Your task to perform on an android device: Show the shopping cart on amazon.com. Add "razer blade" to the cart on amazon.com Image 0: 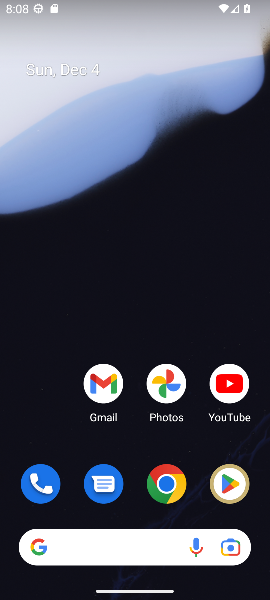
Step 0: click (166, 482)
Your task to perform on an android device: Show the shopping cart on amazon.com. Add "razer blade" to the cart on amazon.com Image 1: 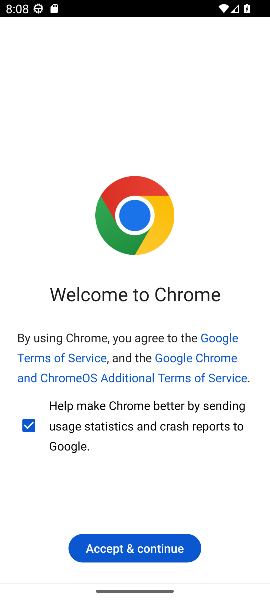
Step 1: click (123, 548)
Your task to perform on an android device: Show the shopping cart on amazon.com. Add "razer blade" to the cart on amazon.com Image 2: 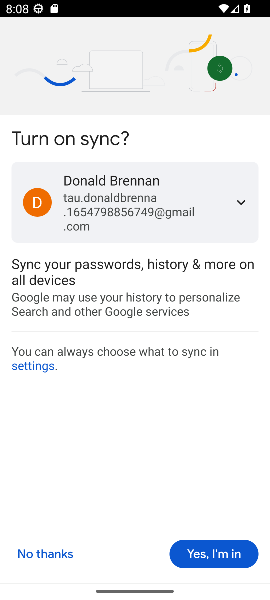
Step 2: click (56, 554)
Your task to perform on an android device: Show the shopping cart on amazon.com. Add "razer blade" to the cart on amazon.com Image 3: 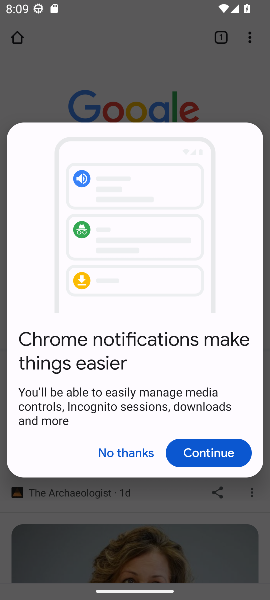
Step 3: press home button
Your task to perform on an android device: Show the shopping cart on amazon.com. Add "razer blade" to the cart on amazon.com Image 4: 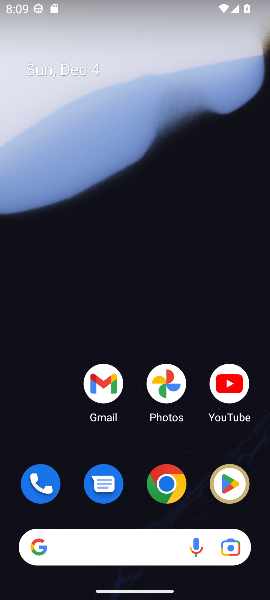
Step 4: click (162, 482)
Your task to perform on an android device: Show the shopping cart on amazon.com. Add "razer blade" to the cart on amazon.com Image 5: 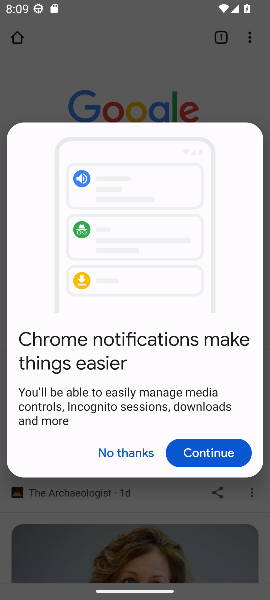
Step 5: press home button
Your task to perform on an android device: Show the shopping cart on amazon.com. Add "razer blade" to the cart on amazon.com Image 6: 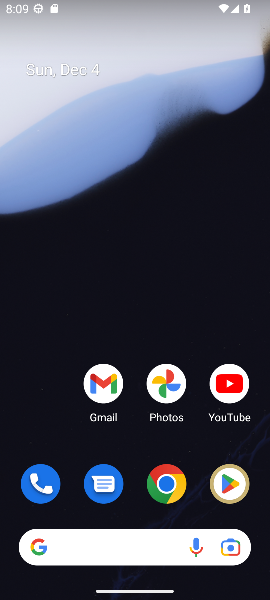
Step 6: click (167, 490)
Your task to perform on an android device: Show the shopping cart on amazon.com. Add "razer blade" to the cart on amazon.com Image 7: 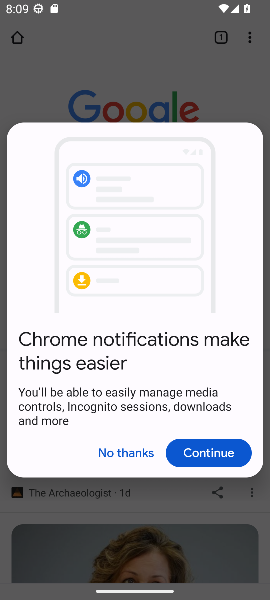
Step 7: click (115, 455)
Your task to perform on an android device: Show the shopping cart on amazon.com. Add "razer blade" to the cart on amazon.com Image 8: 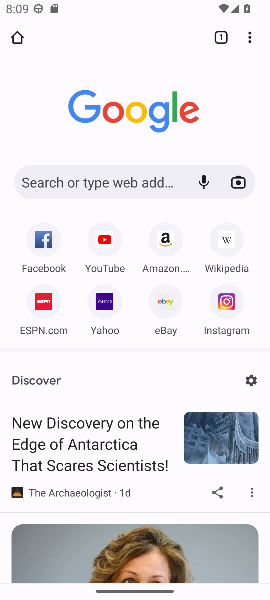
Step 8: click (59, 182)
Your task to perform on an android device: Show the shopping cart on amazon.com. Add "razer blade" to the cart on amazon.com Image 9: 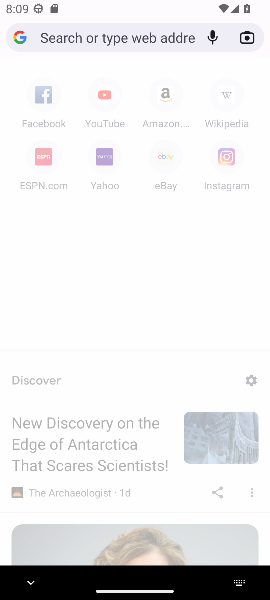
Step 9: click (168, 117)
Your task to perform on an android device: Show the shopping cart on amazon.com. Add "razer blade" to the cart on amazon.com Image 10: 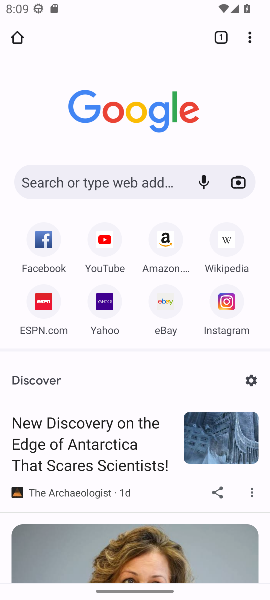
Step 10: click (167, 263)
Your task to perform on an android device: Show the shopping cart on amazon.com. Add "razer blade" to the cart on amazon.com Image 11: 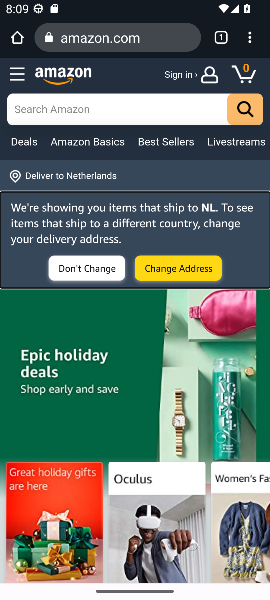
Step 11: click (246, 73)
Your task to perform on an android device: Show the shopping cart on amazon.com. Add "razer blade" to the cart on amazon.com Image 12: 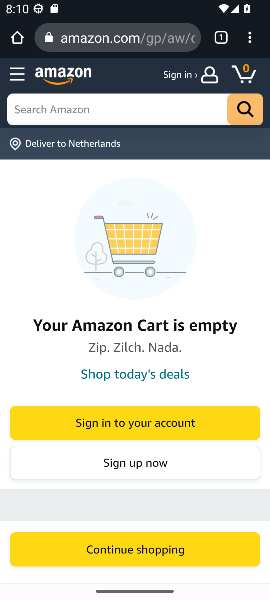
Step 12: click (57, 107)
Your task to perform on an android device: Show the shopping cart on amazon.com. Add "razer blade" to the cart on amazon.com Image 13: 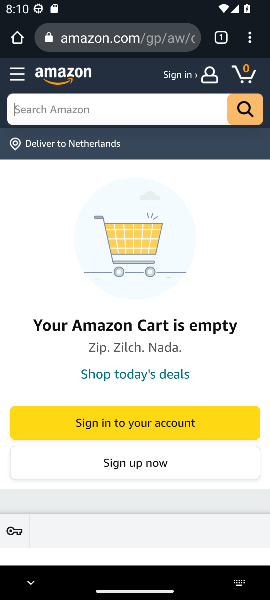
Step 13: type "razer blade"
Your task to perform on an android device: Show the shopping cart on amazon.com. Add "razer blade" to the cart on amazon.com Image 14: 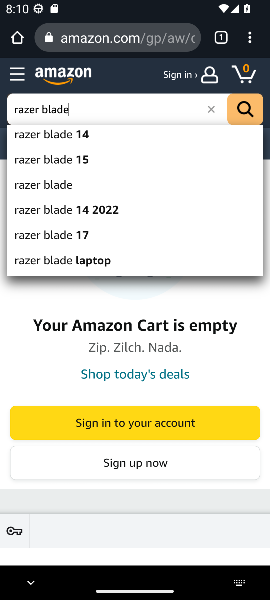
Step 14: click (36, 136)
Your task to perform on an android device: Show the shopping cart on amazon.com. Add "razer blade" to the cart on amazon.com Image 15: 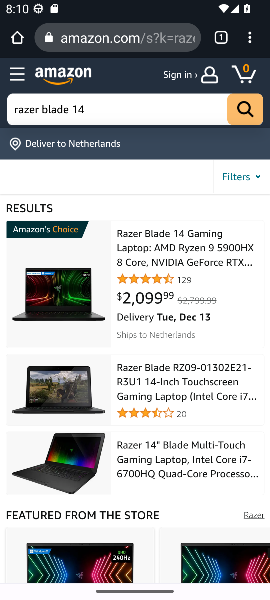
Step 15: click (146, 262)
Your task to perform on an android device: Show the shopping cart on amazon.com. Add "razer blade" to the cart on amazon.com Image 16: 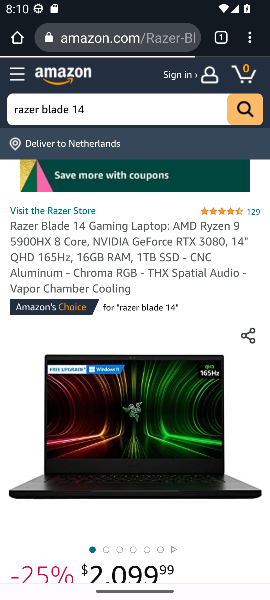
Step 16: drag from (166, 434) to (170, 166)
Your task to perform on an android device: Show the shopping cart on amazon.com. Add "razer blade" to the cart on amazon.com Image 17: 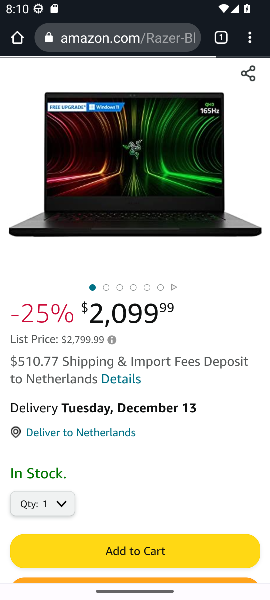
Step 17: drag from (161, 407) to (160, 238)
Your task to perform on an android device: Show the shopping cart on amazon.com. Add "razer blade" to the cart on amazon.com Image 18: 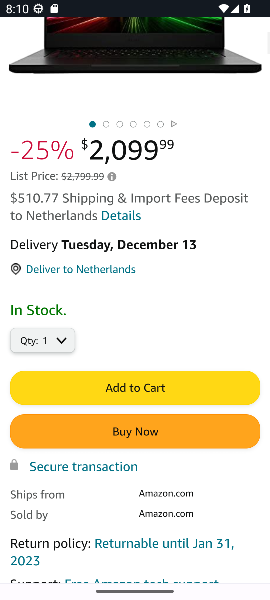
Step 18: click (138, 385)
Your task to perform on an android device: Show the shopping cart on amazon.com. Add "razer blade" to the cart on amazon.com Image 19: 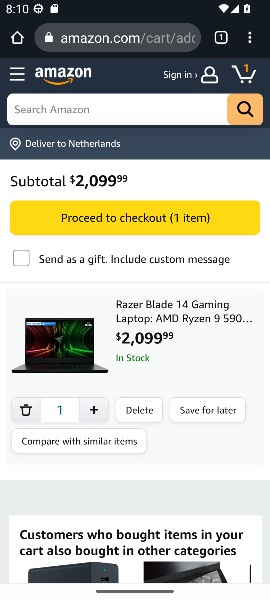
Step 19: task complete